Your task to perform on an android device: Clear the shopping cart on walmart.com. Search for "usb-c to usb-a" on walmart.com, select the first entry, and add it to the cart. Image 0: 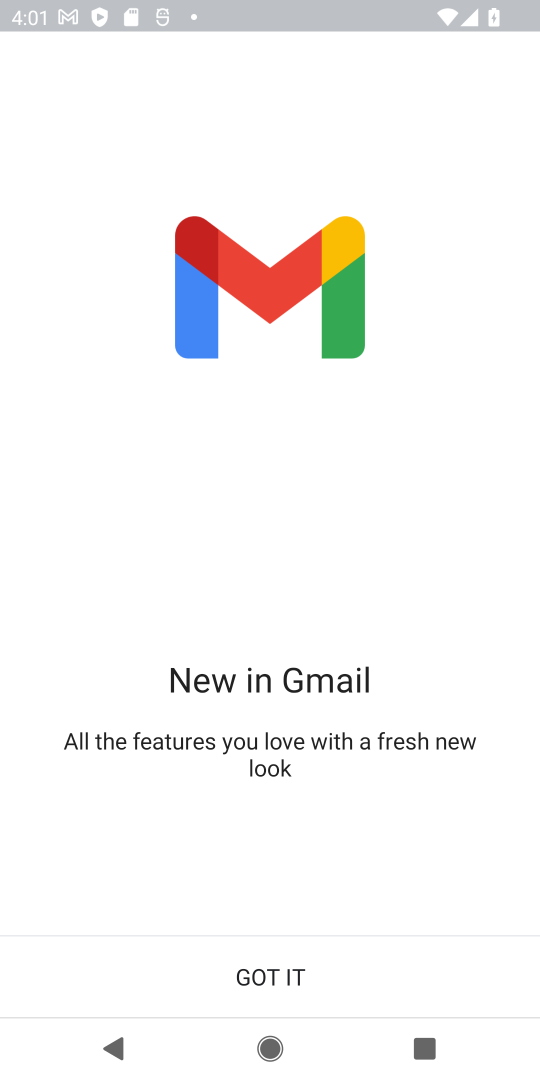
Step 0: press home button
Your task to perform on an android device: Clear the shopping cart on walmart.com. Search for "usb-c to usb-a" on walmart.com, select the first entry, and add it to the cart. Image 1: 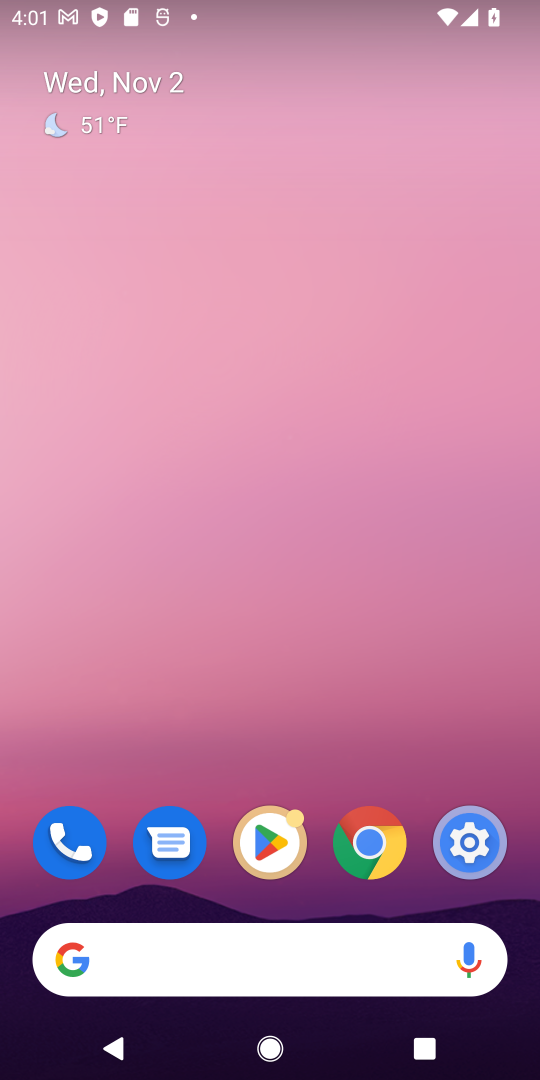
Step 1: click (179, 968)
Your task to perform on an android device: Clear the shopping cart on walmart.com. Search for "usb-c to usb-a" on walmart.com, select the first entry, and add it to the cart. Image 2: 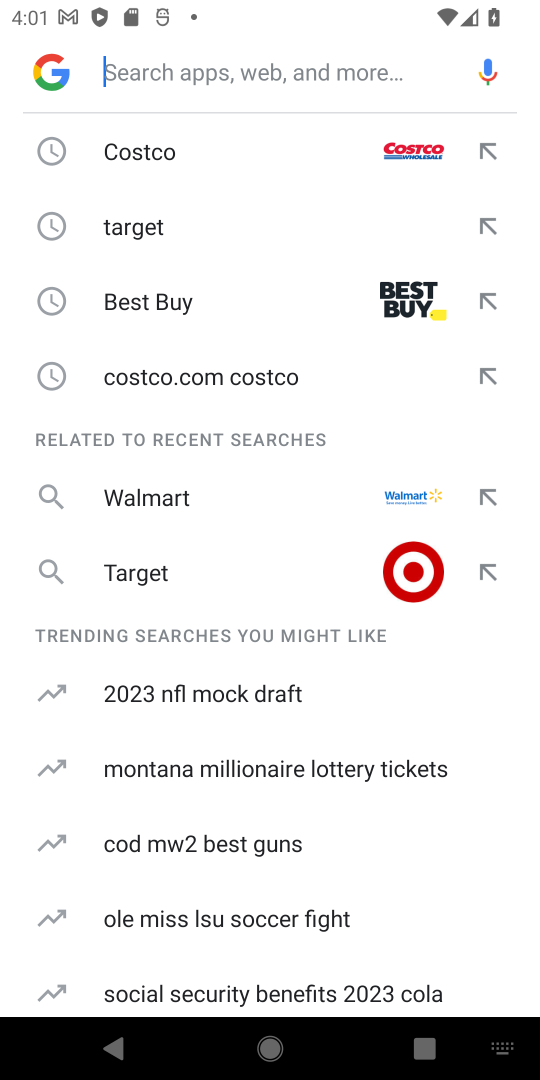
Step 2: click (139, 496)
Your task to perform on an android device: Clear the shopping cart on walmart.com. Search for "usb-c to usb-a" on walmart.com, select the first entry, and add it to the cart. Image 3: 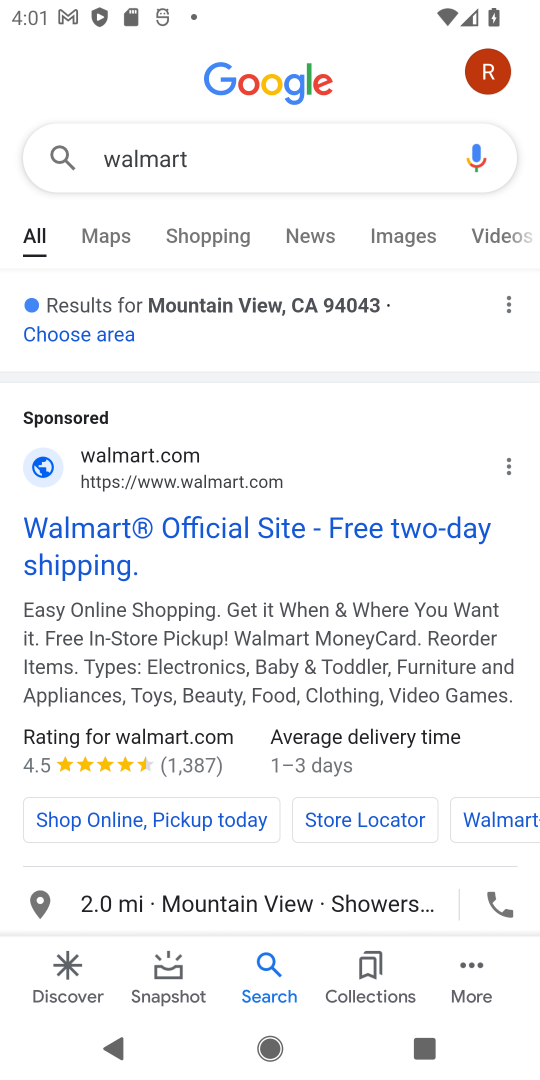
Step 3: drag from (216, 575) to (178, 353)
Your task to perform on an android device: Clear the shopping cart on walmart.com. Search for "usb-c to usb-a" on walmart.com, select the first entry, and add it to the cart. Image 4: 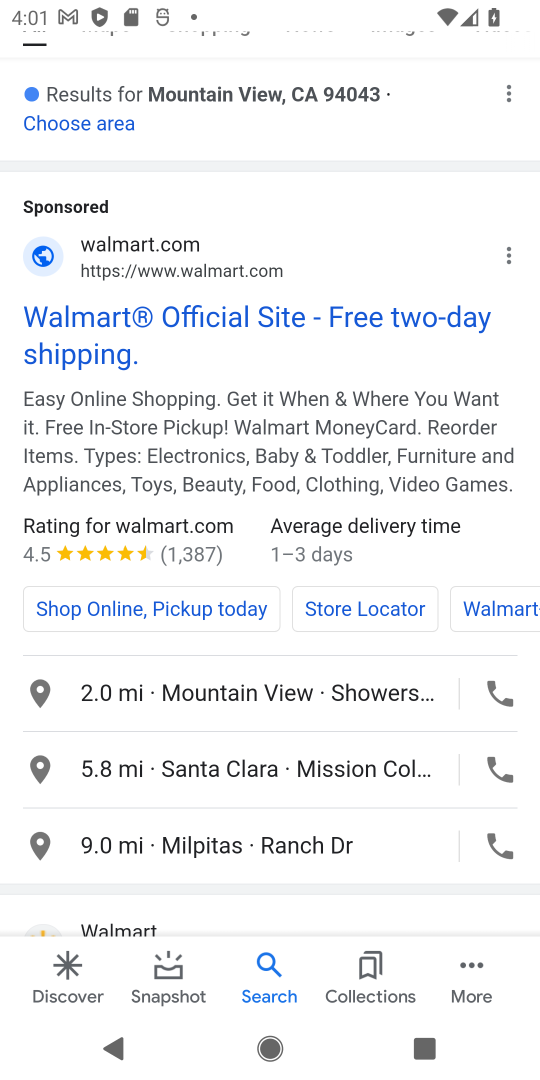
Step 4: drag from (256, 663) to (208, 203)
Your task to perform on an android device: Clear the shopping cart on walmart.com. Search for "usb-c to usb-a" on walmart.com, select the first entry, and add it to the cart. Image 5: 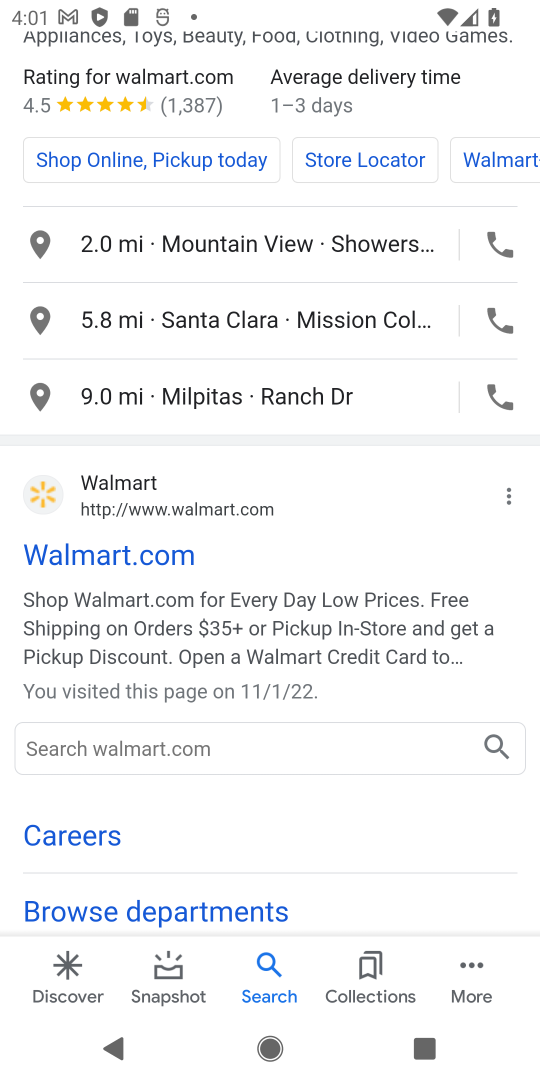
Step 5: click (133, 554)
Your task to perform on an android device: Clear the shopping cart on walmart.com. Search for "usb-c to usb-a" on walmart.com, select the first entry, and add it to the cart. Image 6: 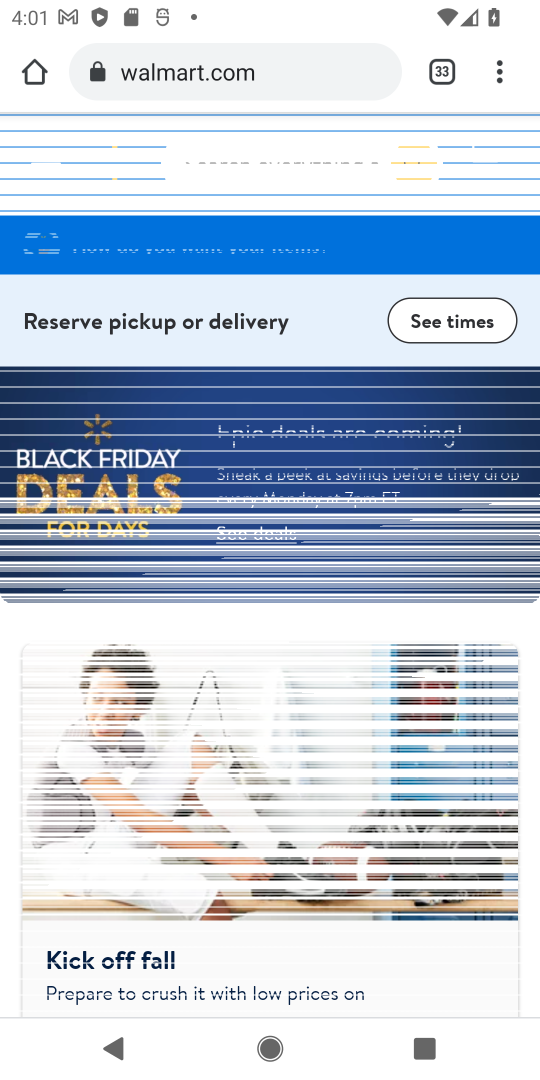
Step 6: click (266, 171)
Your task to perform on an android device: Clear the shopping cart on walmart.com. Search for "usb-c to usb-a" on walmart.com, select the first entry, and add it to the cart. Image 7: 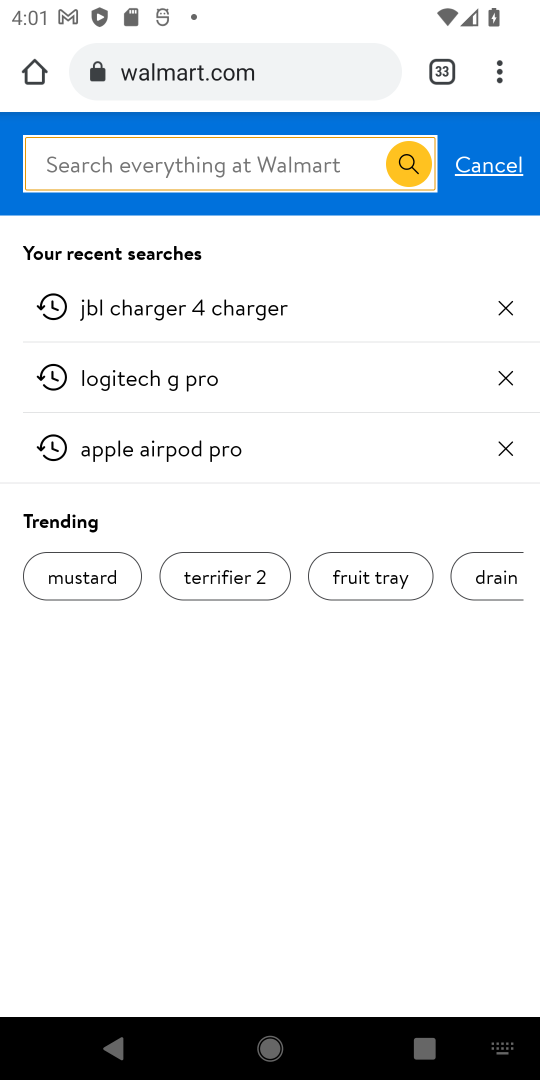
Step 7: type "usb-c to usb-a"
Your task to perform on an android device: Clear the shopping cart on walmart.com. Search for "usb-c to usb-a" on walmart.com, select the first entry, and add it to the cart. Image 8: 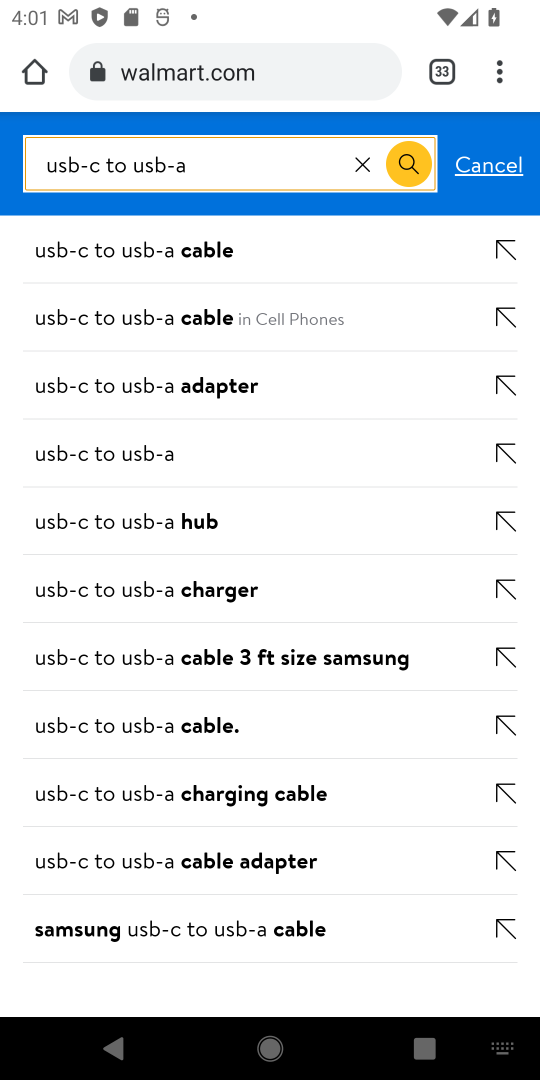
Step 8: click (196, 242)
Your task to perform on an android device: Clear the shopping cart on walmart.com. Search for "usb-c to usb-a" on walmart.com, select the first entry, and add it to the cart. Image 9: 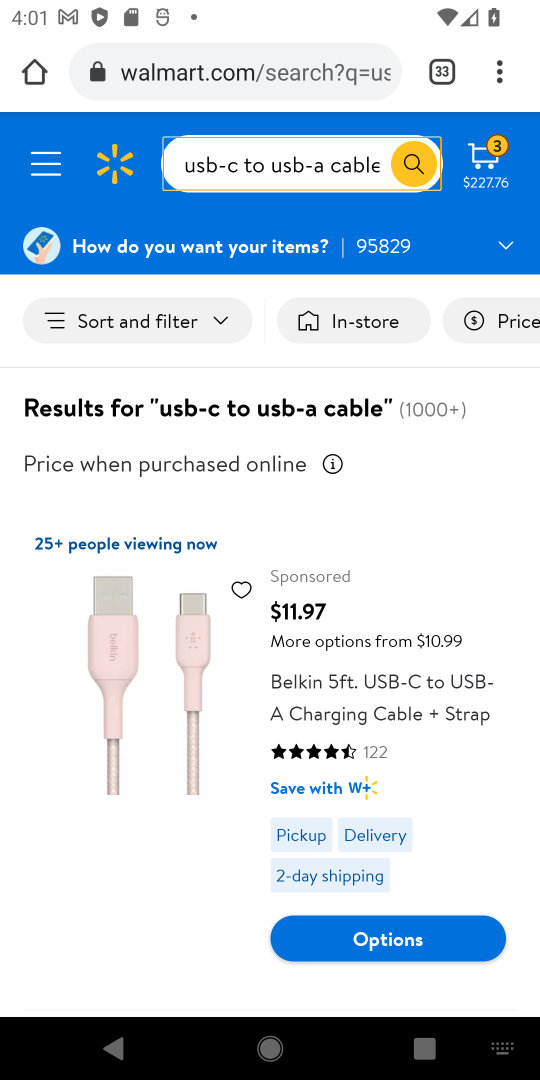
Step 9: click (372, 937)
Your task to perform on an android device: Clear the shopping cart on walmart.com. Search for "usb-c to usb-a" on walmart.com, select the first entry, and add it to the cart. Image 10: 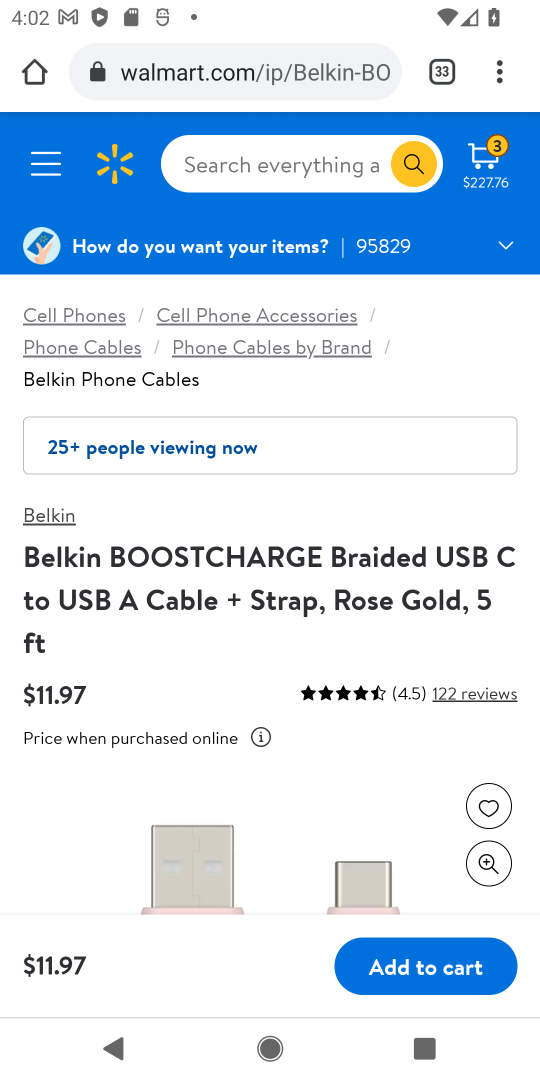
Step 10: click (410, 978)
Your task to perform on an android device: Clear the shopping cart on walmart.com. Search for "usb-c to usb-a" on walmart.com, select the first entry, and add it to the cart. Image 11: 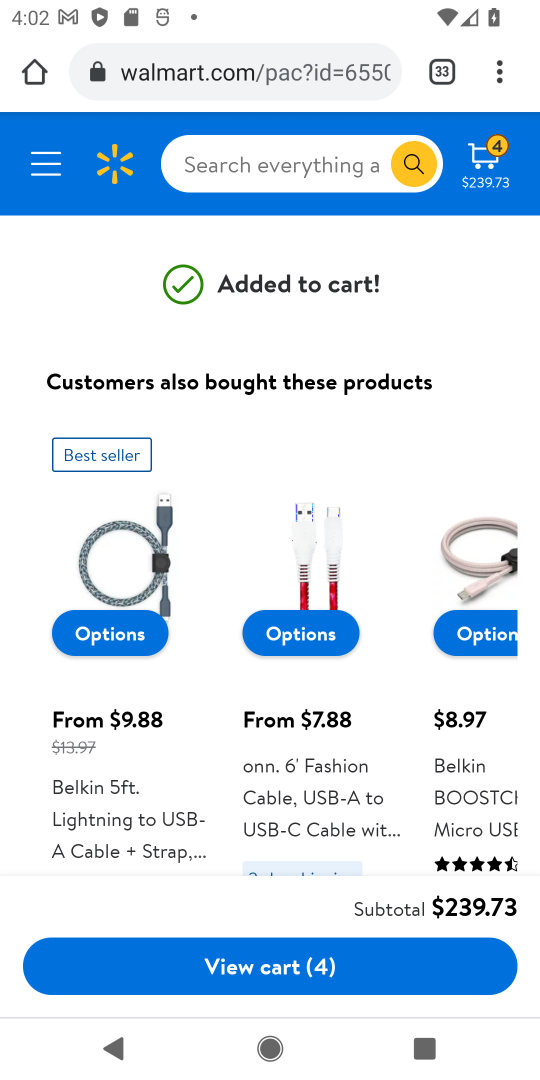
Step 11: task complete